Your task to perform on an android device: Open internet settings Image 0: 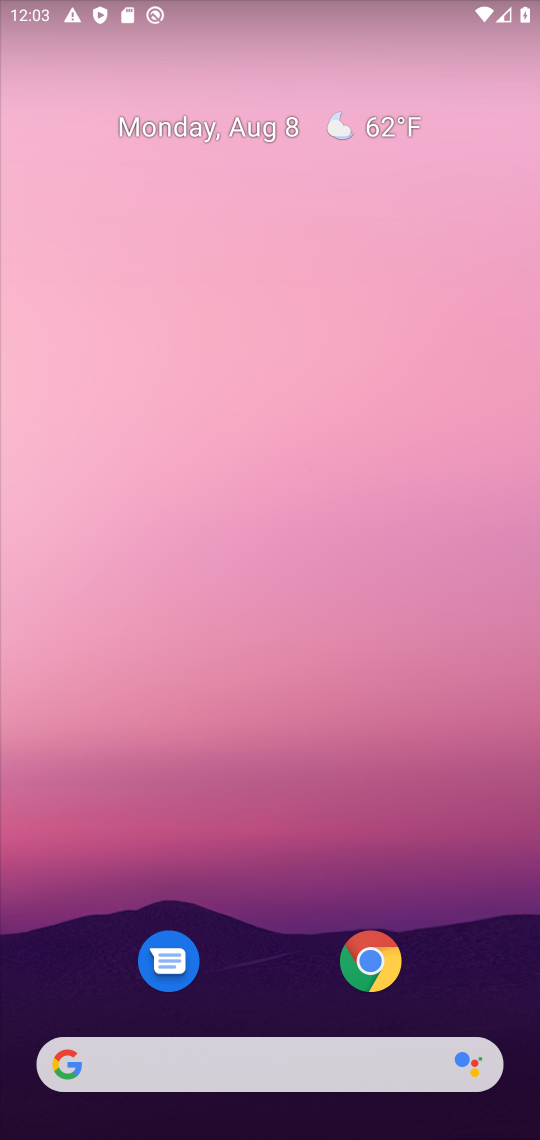
Step 0: drag from (209, 1102) to (413, 9)
Your task to perform on an android device: Open internet settings Image 1: 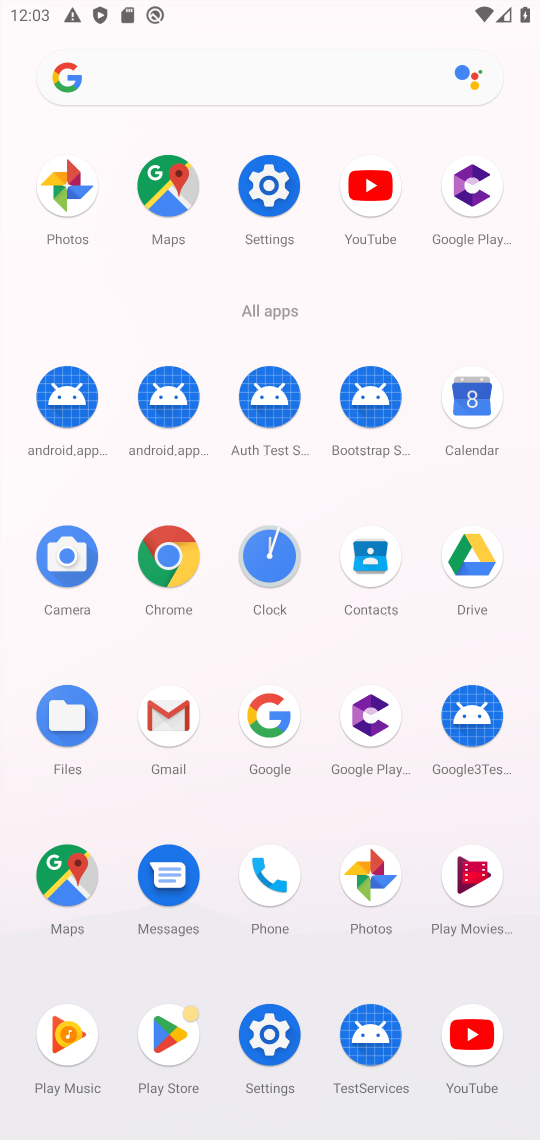
Step 1: click (264, 193)
Your task to perform on an android device: Open internet settings Image 2: 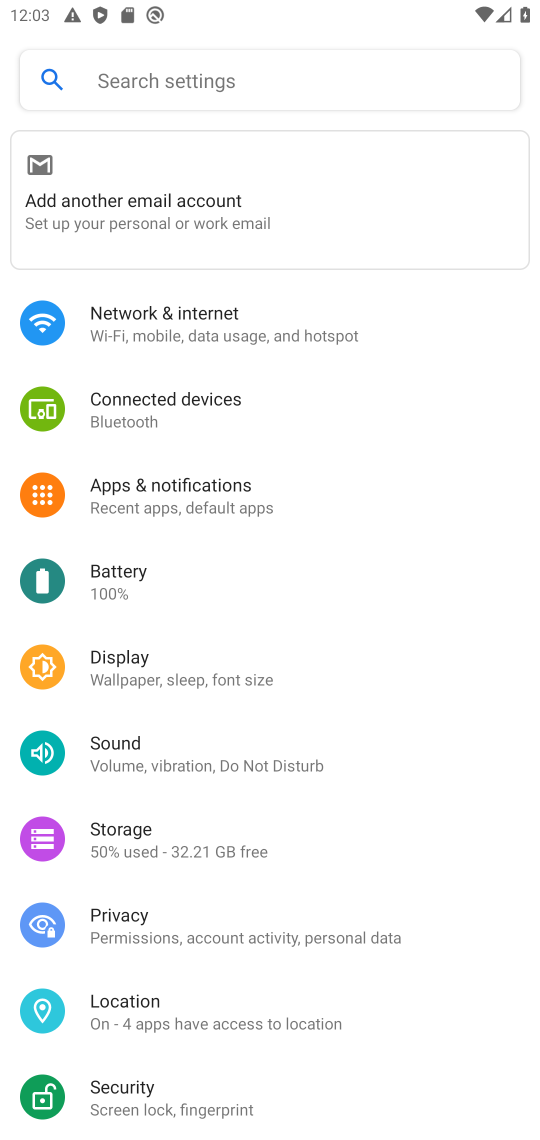
Step 2: click (277, 339)
Your task to perform on an android device: Open internet settings Image 3: 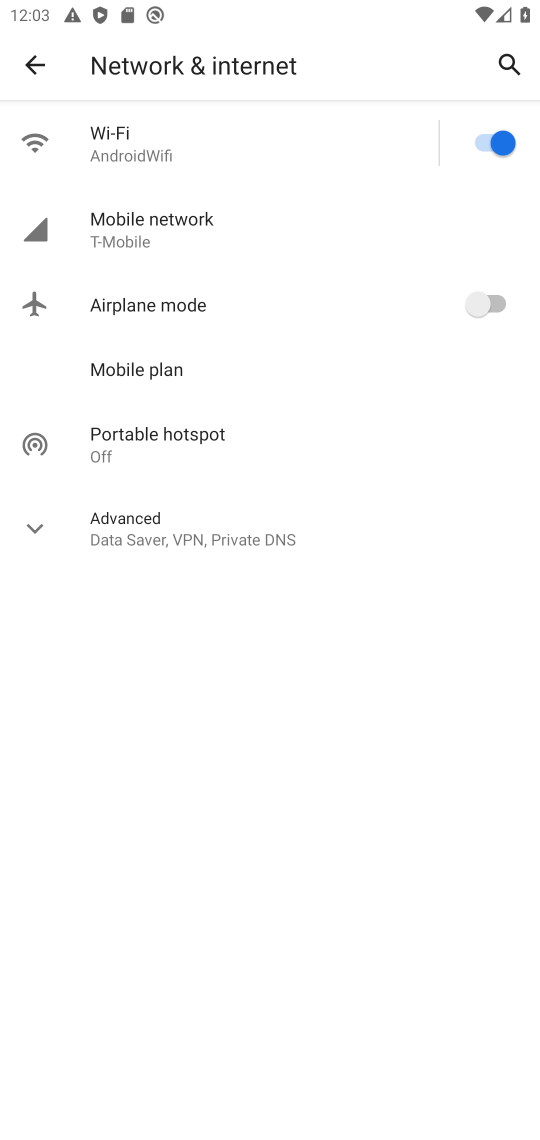
Step 3: task complete